Your task to perform on an android device: Open Reddit.com Image 0: 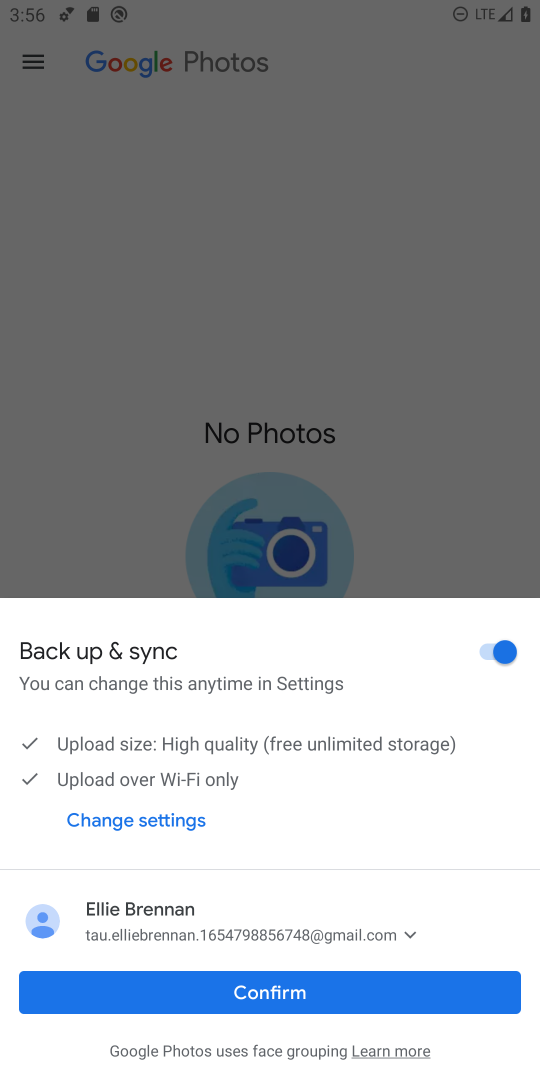
Step 0: press home button
Your task to perform on an android device: Open Reddit.com Image 1: 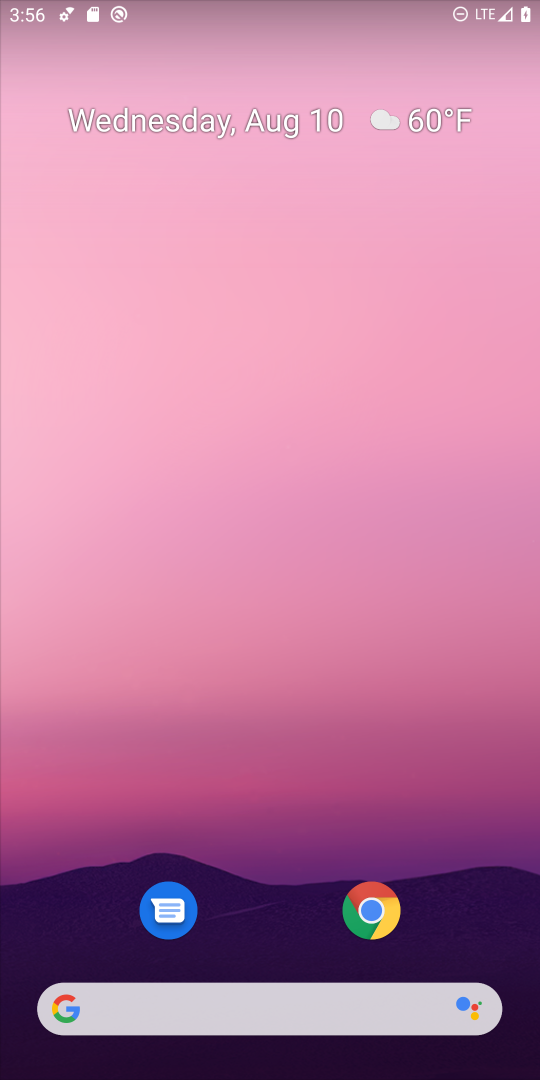
Step 1: click (355, 926)
Your task to perform on an android device: Open Reddit.com Image 2: 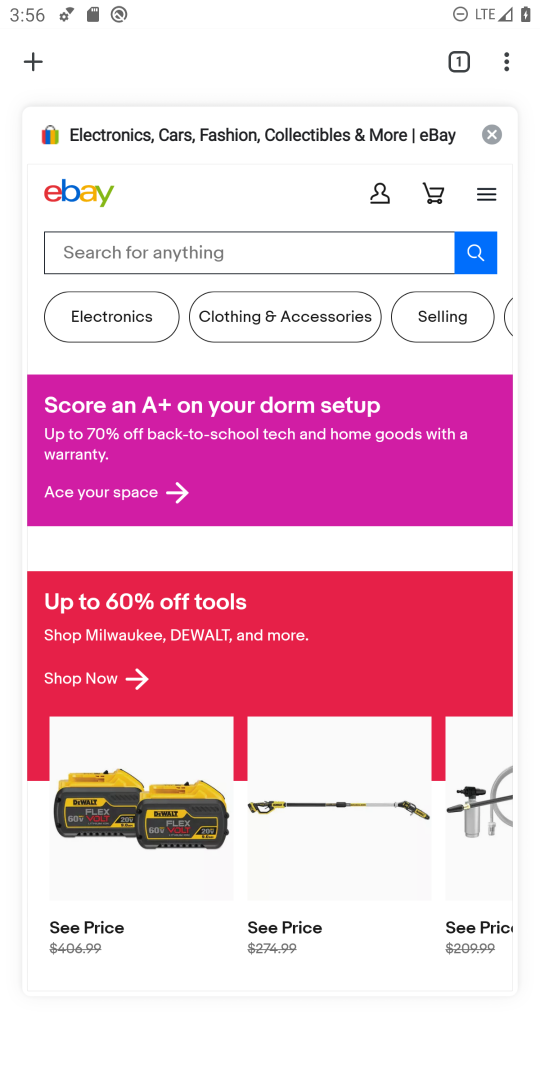
Step 2: click (34, 64)
Your task to perform on an android device: Open Reddit.com Image 3: 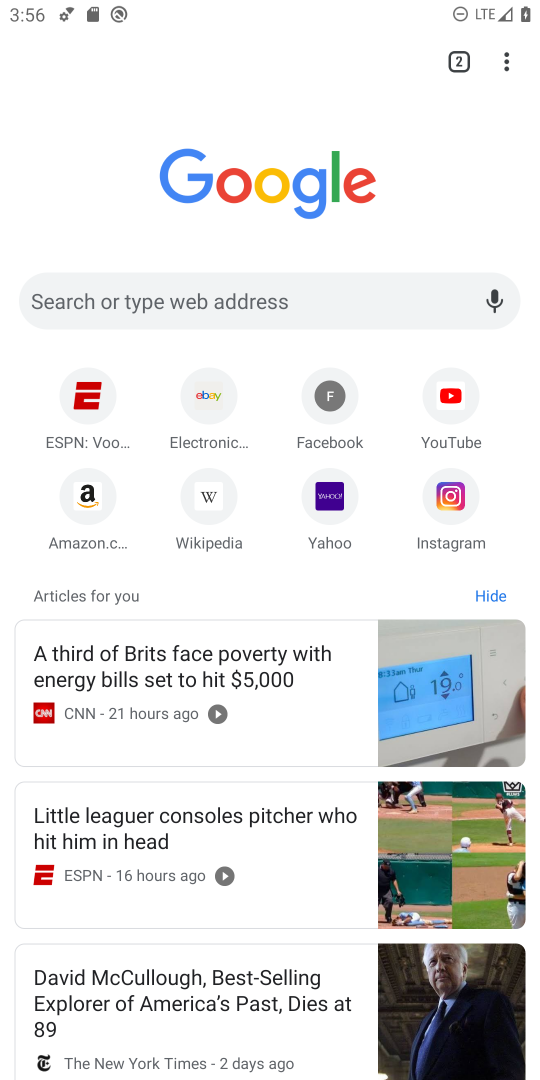
Step 3: click (178, 305)
Your task to perform on an android device: Open Reddit.com Image 4: 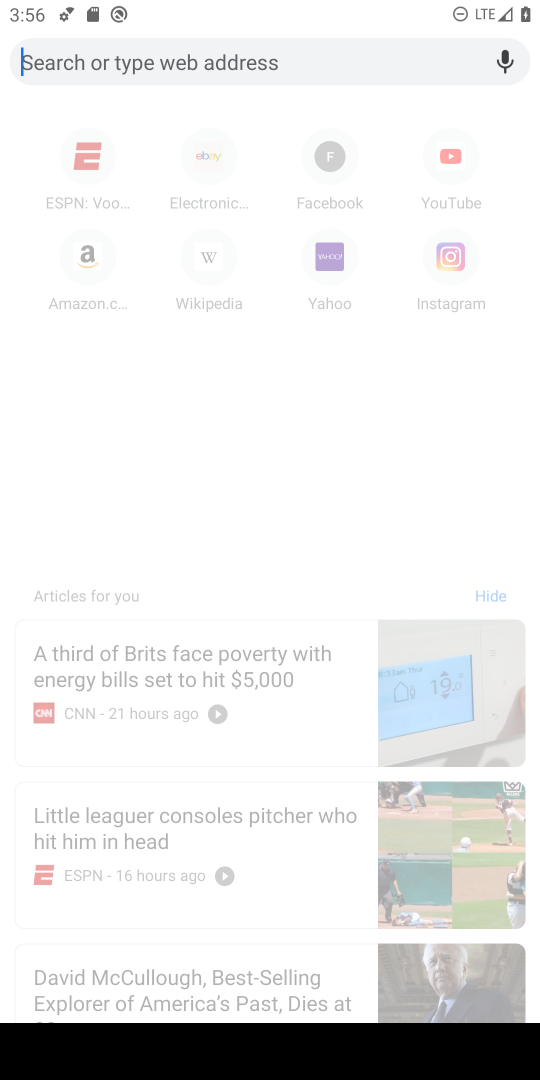
Step 4: type "reddit.com"
Your task to perform on an android device: Open Reddit.com Image 5: 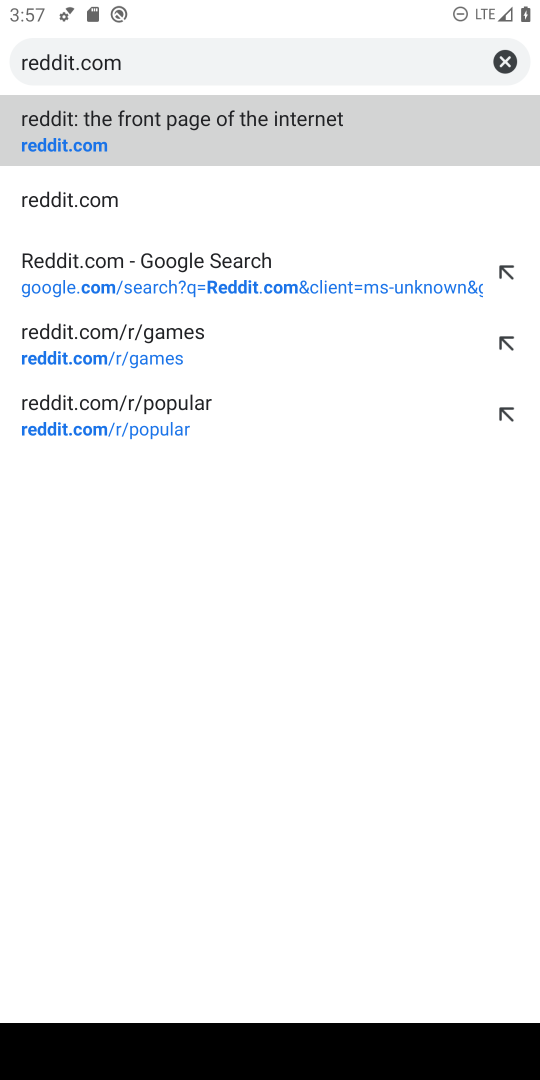
Step 5: task complete